Your task to perform on an android device: Open Youtube and go to "Your channel" Image 0: 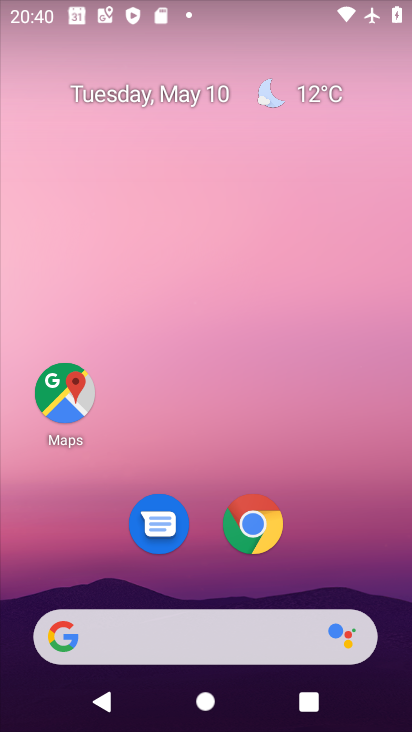
Step 0: drag from (354, 558) to (223, 26)
Your task to perform on an android device: Open Youtube and go to "Your channel" Image 1: 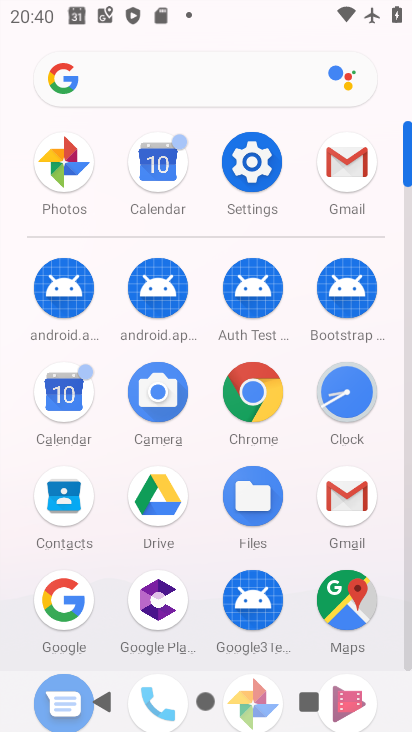
Step 1: drag from (211, 607) to (227, 211)
Your task to perform on an android device: Open Youtube and go to "Your channel" Image 2: 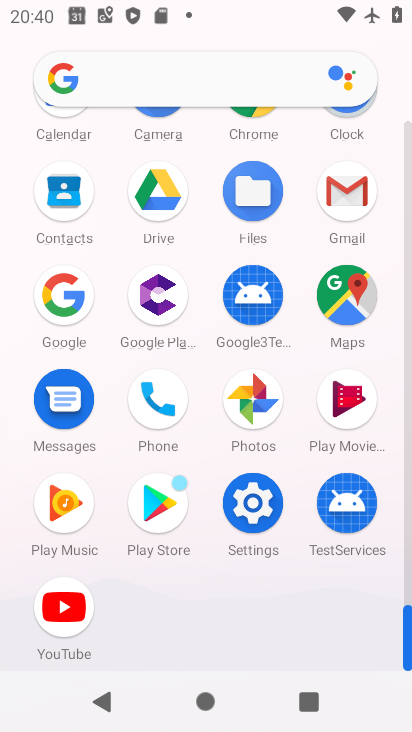
Step 2: click (63, 611)
Your task to perform on an android device: Open Youtube and go to "Your channel" Image 3: 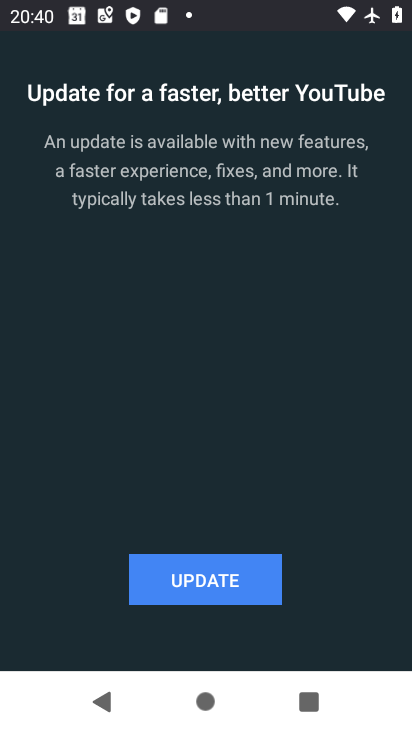
Step 3: click (259, 574)
Your task to perform on an android device: Open Youtube and go to "Your channel" Image 4: 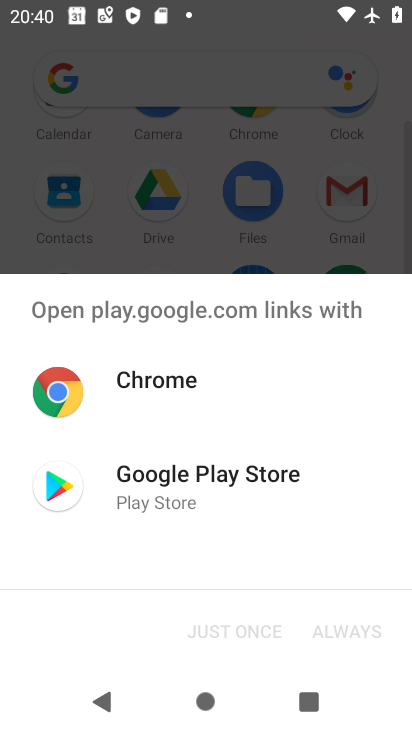
Step 4: click (162, 468)
Your task to perform on an android device: Open Youtube and go to "Your channel" Image 5: 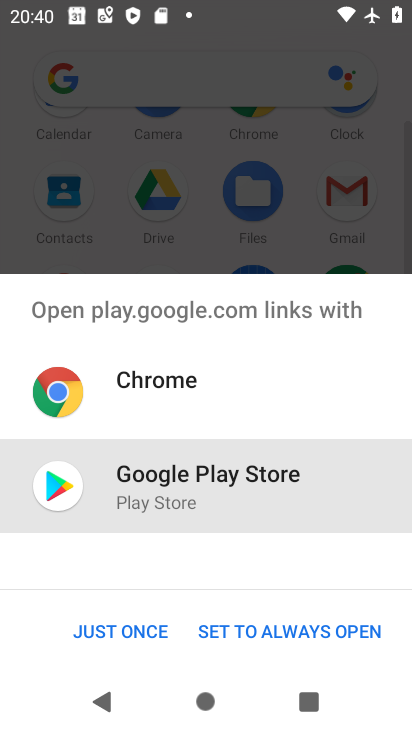
Step 5: click (123, 619)
Your task to perform on an android device: Open Youtube and go to "Your channel" Image 6: 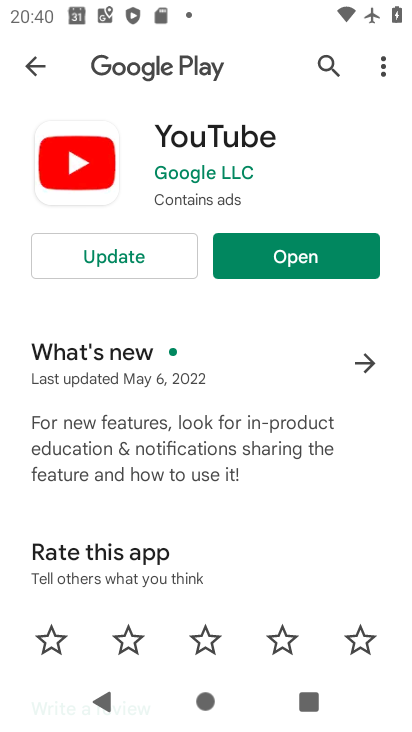
Step 6: click (141, 250)
Your task to perform on an android device: Open Youtube and go to "Your channel" Image 7: 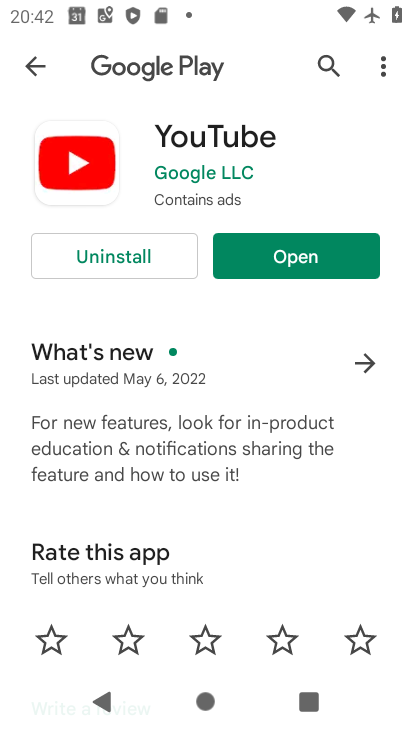
Step 7: click (257, 259)
Your task to perform on an android device: Open Youtube and go to "Your channel" Image 8: 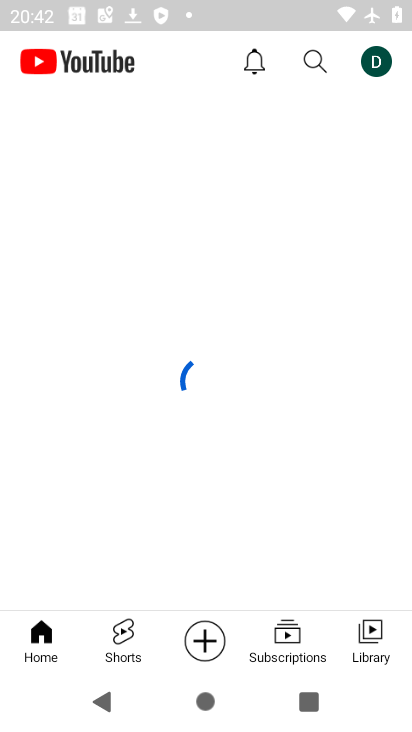
Step 8: click (384, 64)
Your task to perform on an android device: Open Youtube and go to "Your channel" Image 9: 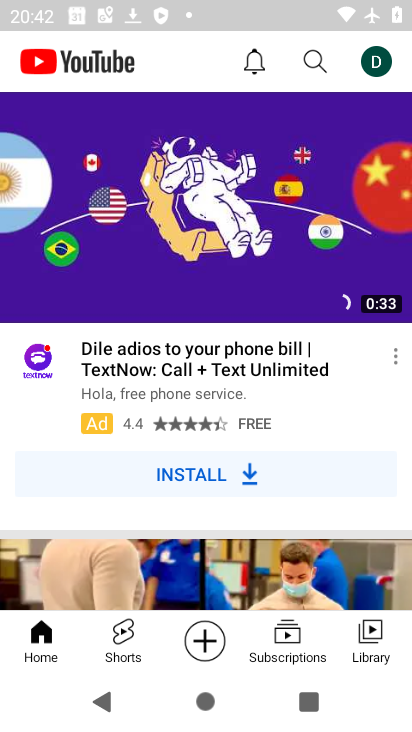
Step 9: click (379, 63)
Your task to perform on an android device: Open Youtube and go to "Your channel" Image 10: 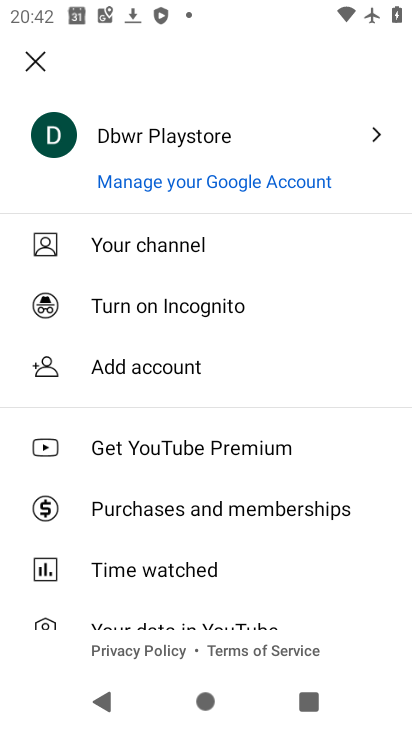
Step 10: click (199, 245)
Your task to perform on an android device: Open Youtube and go to "Your channel" Image 11: 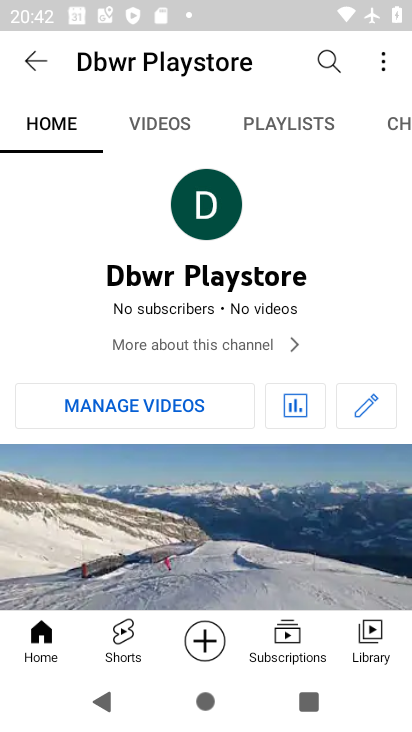
Step 11: task complete